Your task to perform on an android device: open app "Calculator" Image 0: 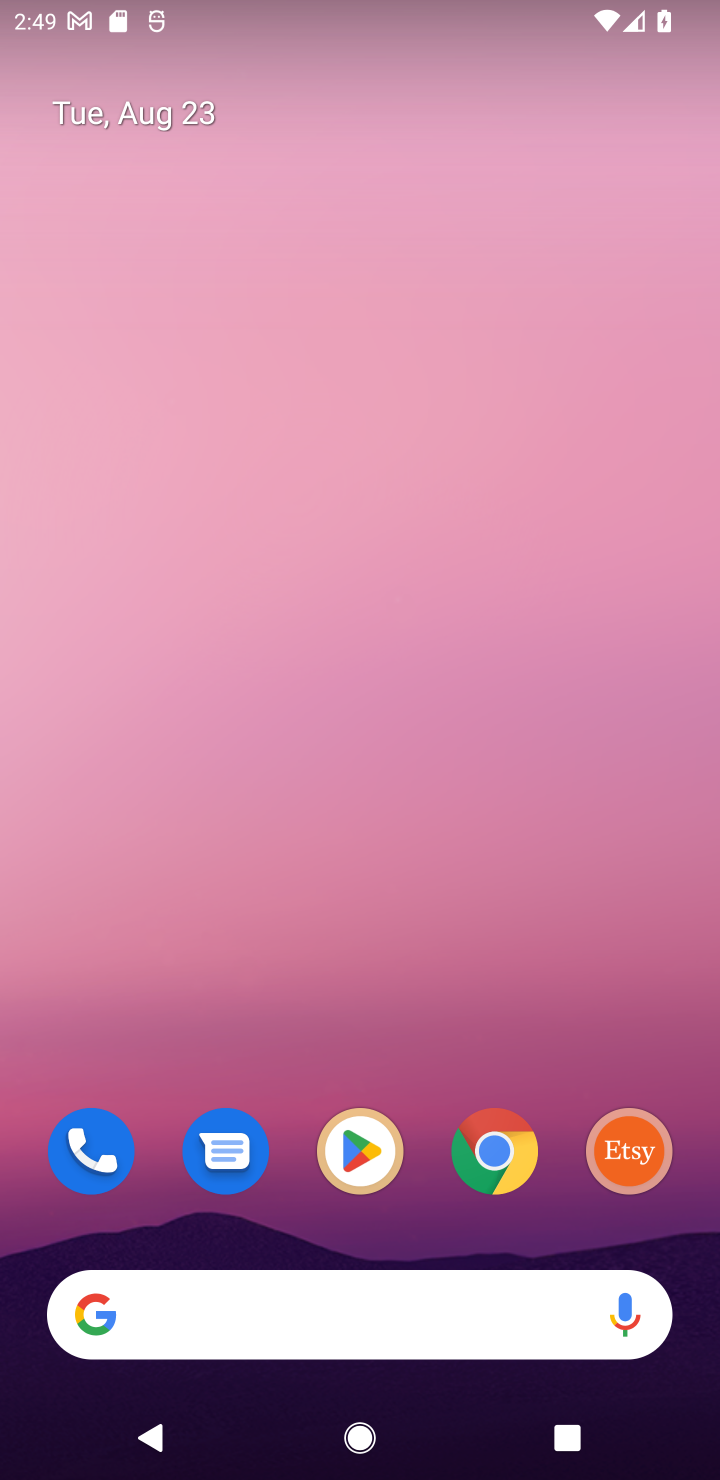
Step 0: click (354, 1154)
Your task to perform on an android device: open app "Calculator" Image 1: 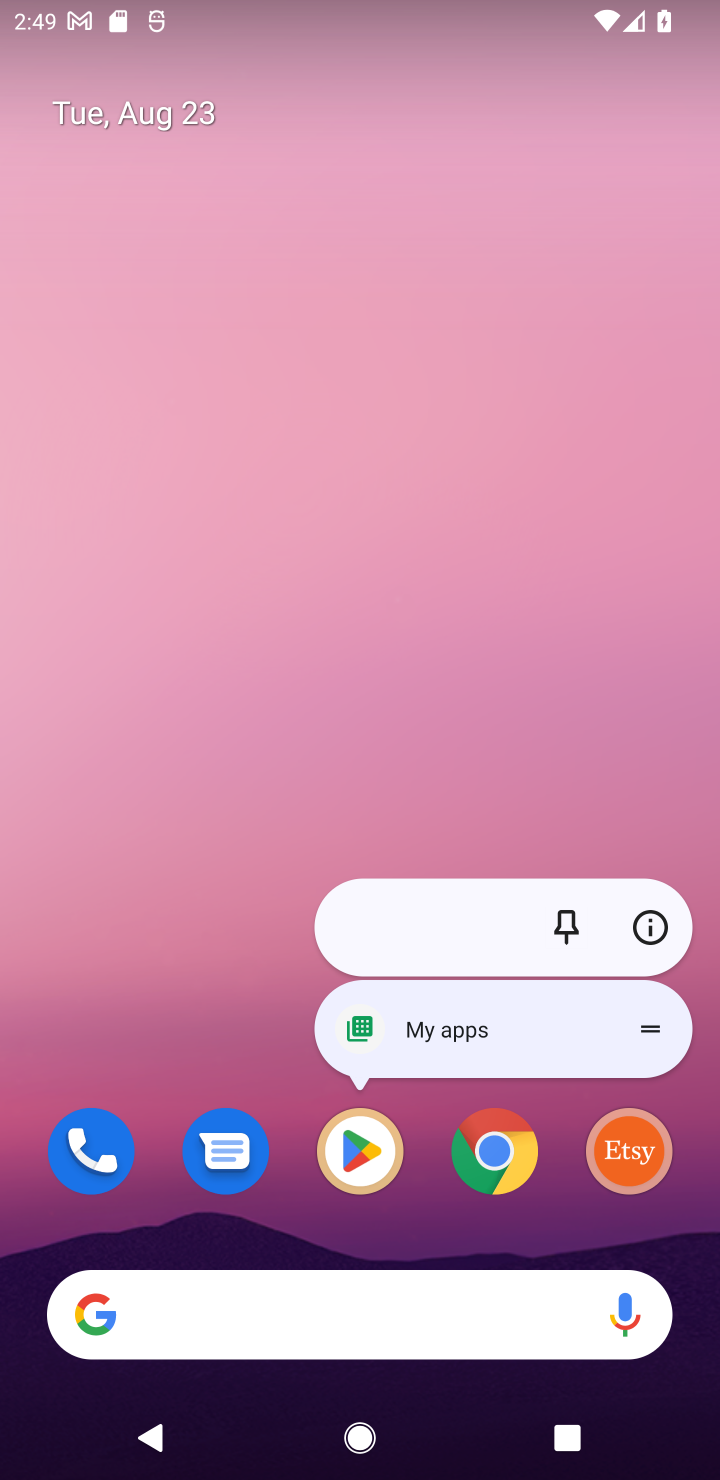
Step 1: click (354, 1163)
Your task to perform on an android device: open app "Calculator" Image 2: 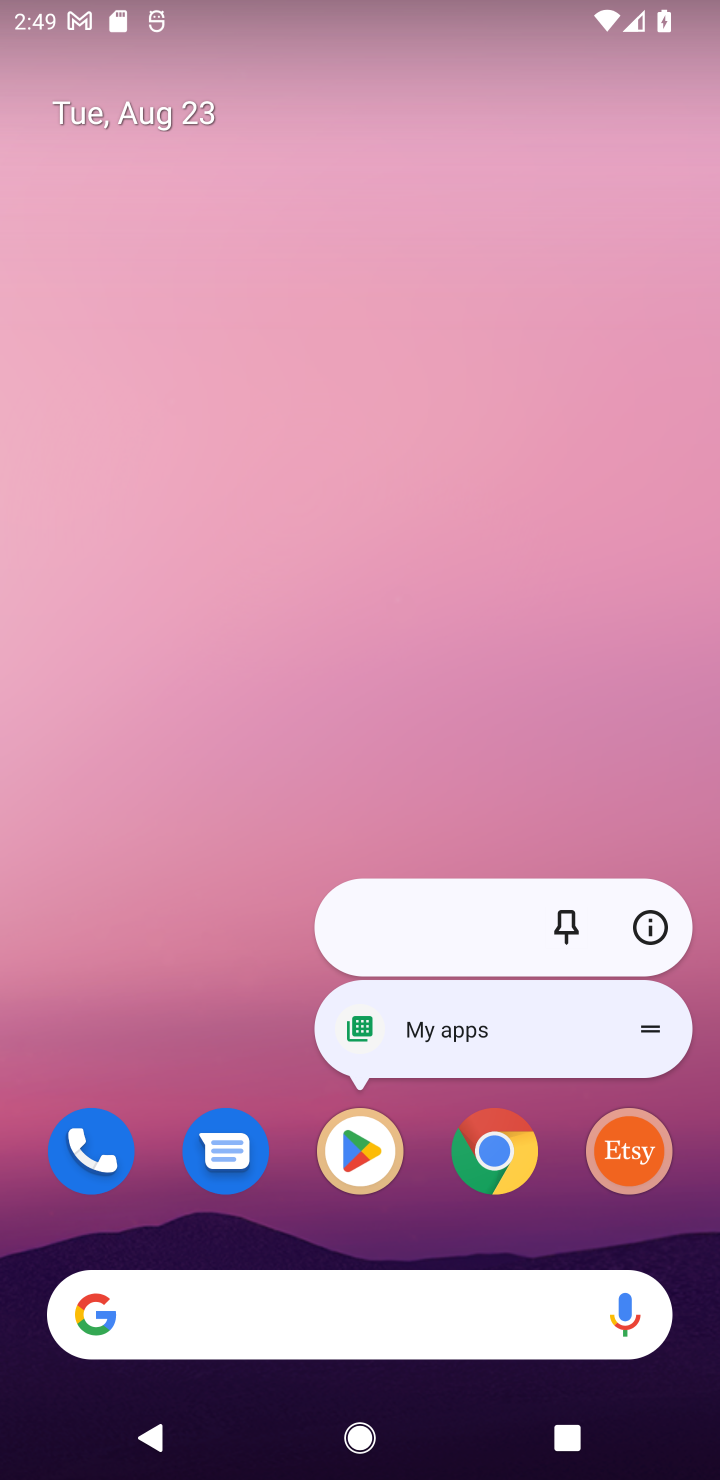
Step 2: click (354, 1163)
Your task to perform on an android device: open app "Calculator" Image 3: 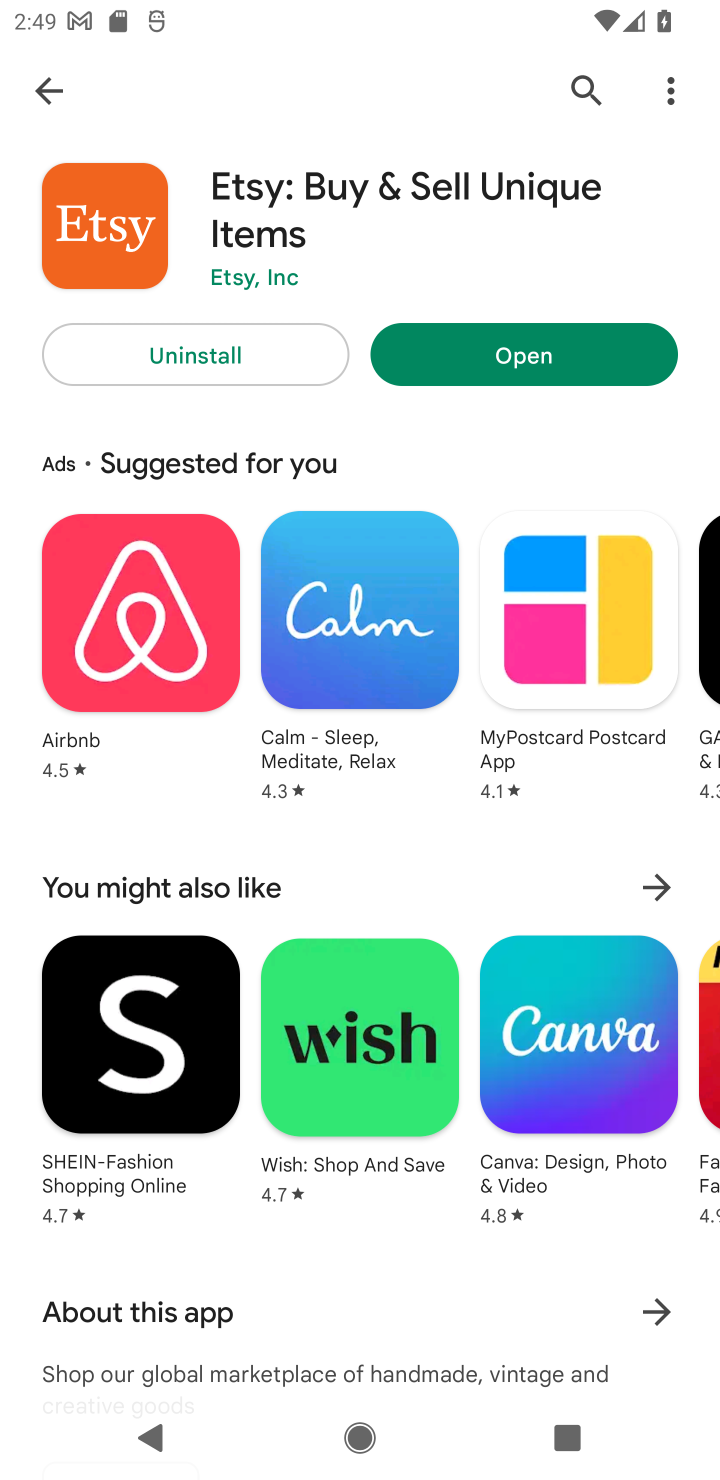
Step 3: click (583, 86)
Your task to perform on an android device: open app "Calculator" Image 4: 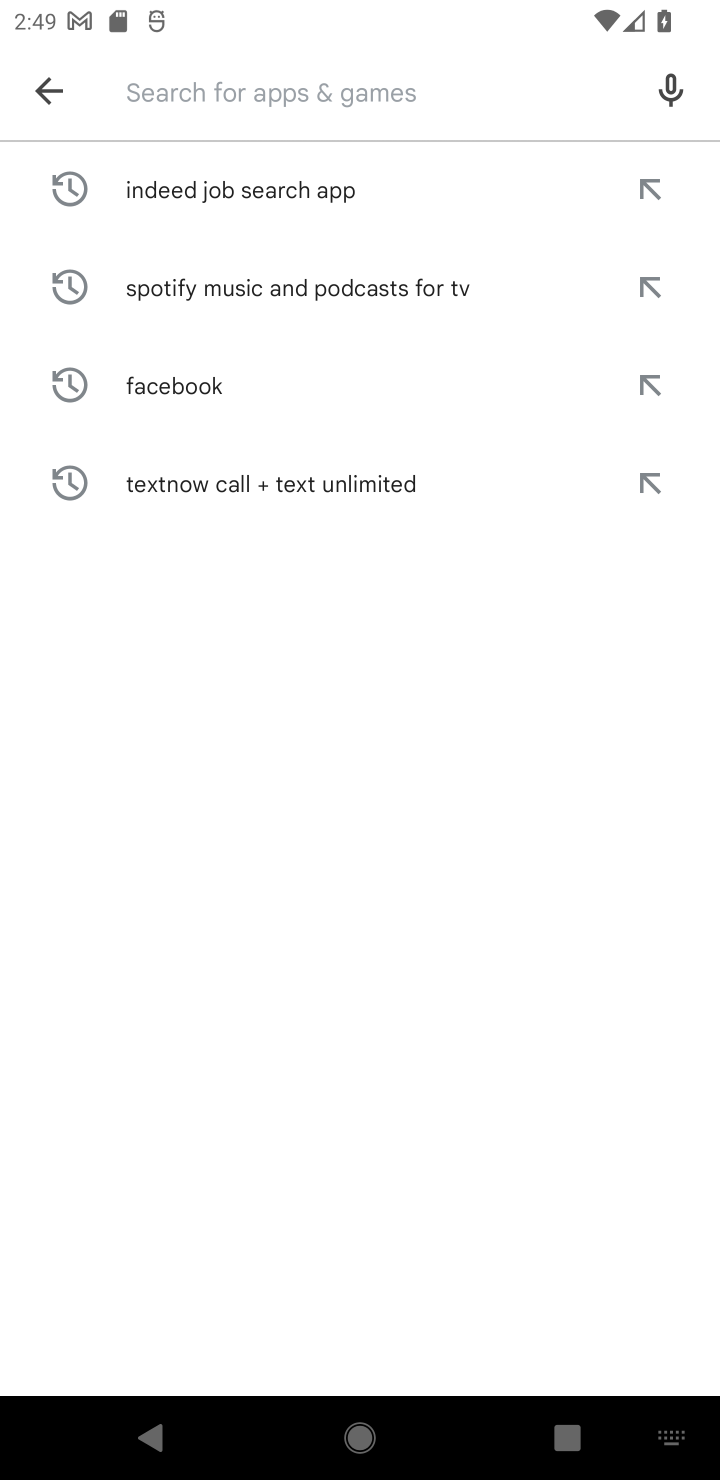
Step 4: type "Calculator"
Your task to perform on an android device: open app "Calculator" Image 5: 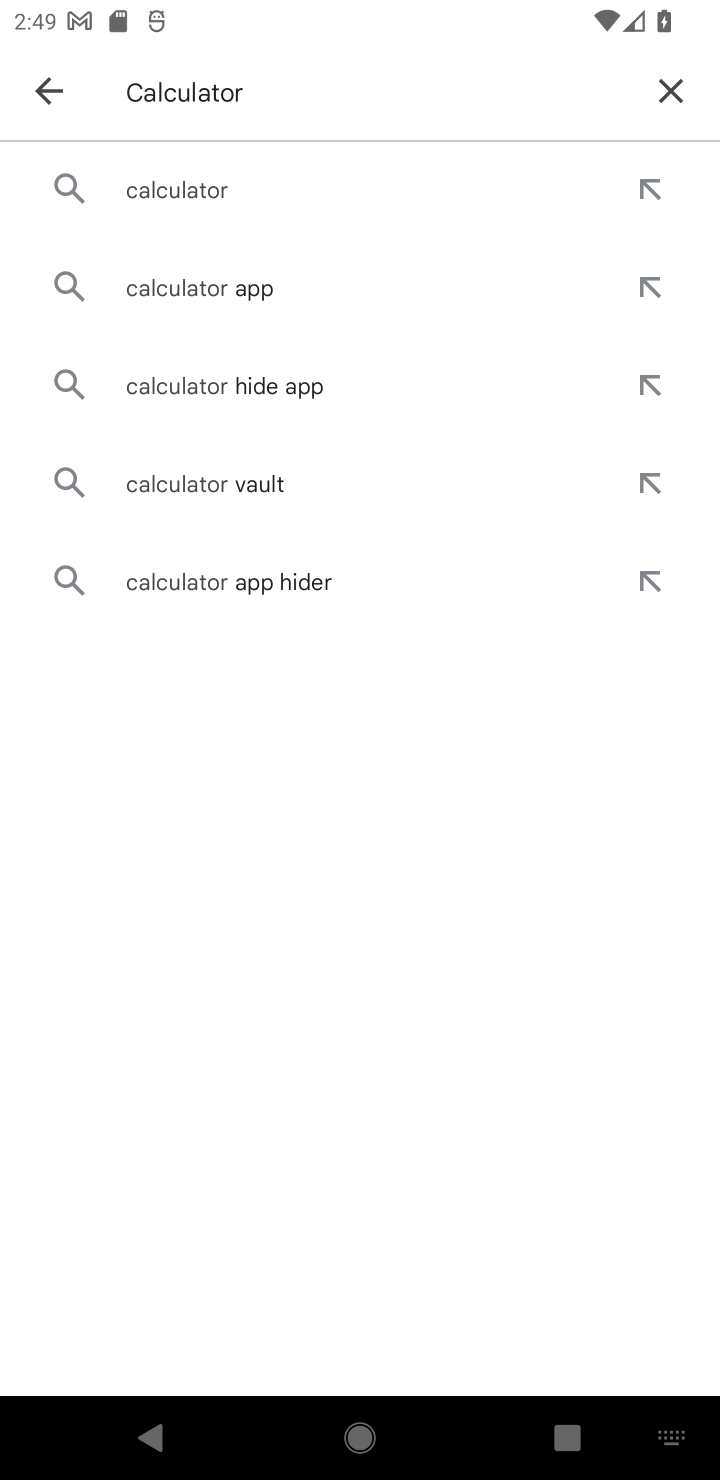
Step 5: click (196, 193)
Your task to perform on an android device: open app "Calculator" Image 6: 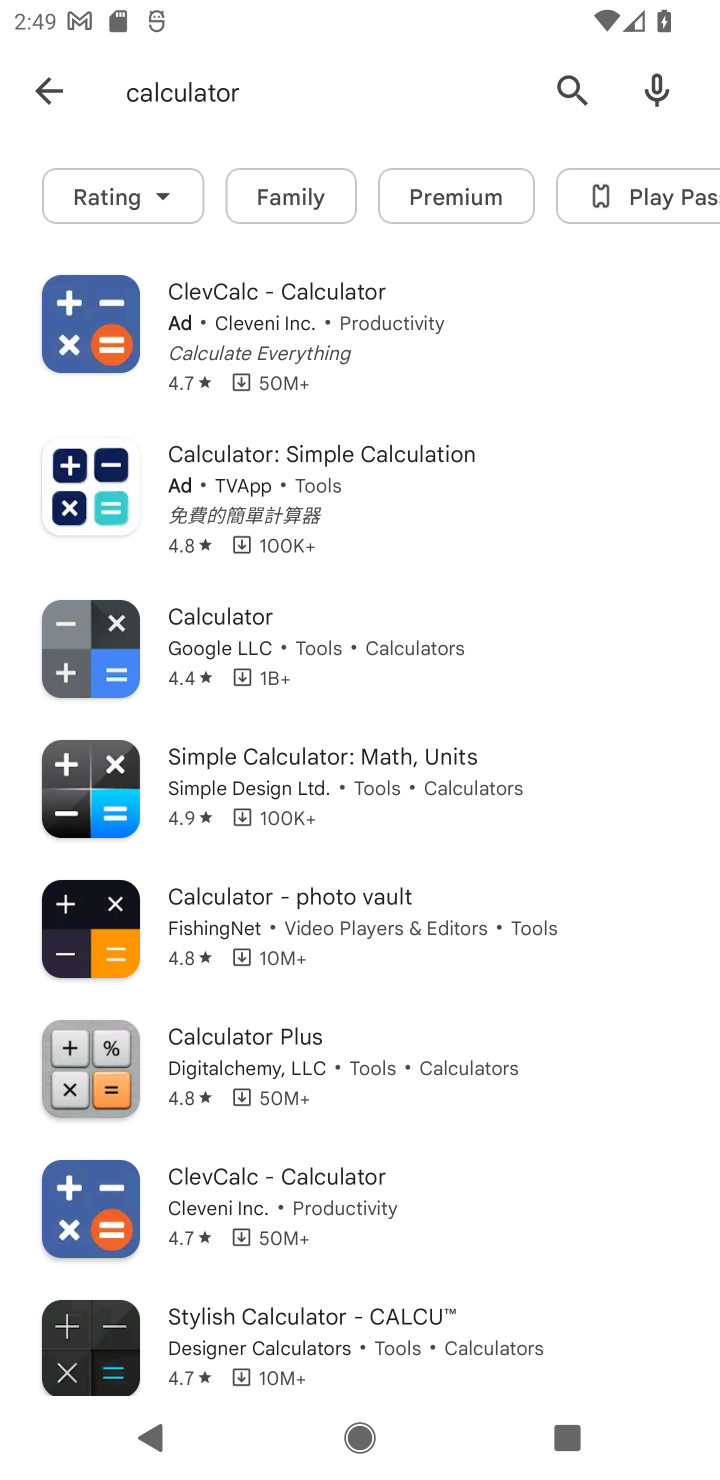
Step 6: click (282, 649)
Your task to perform on an android device: open app "Calculator" Image 7: 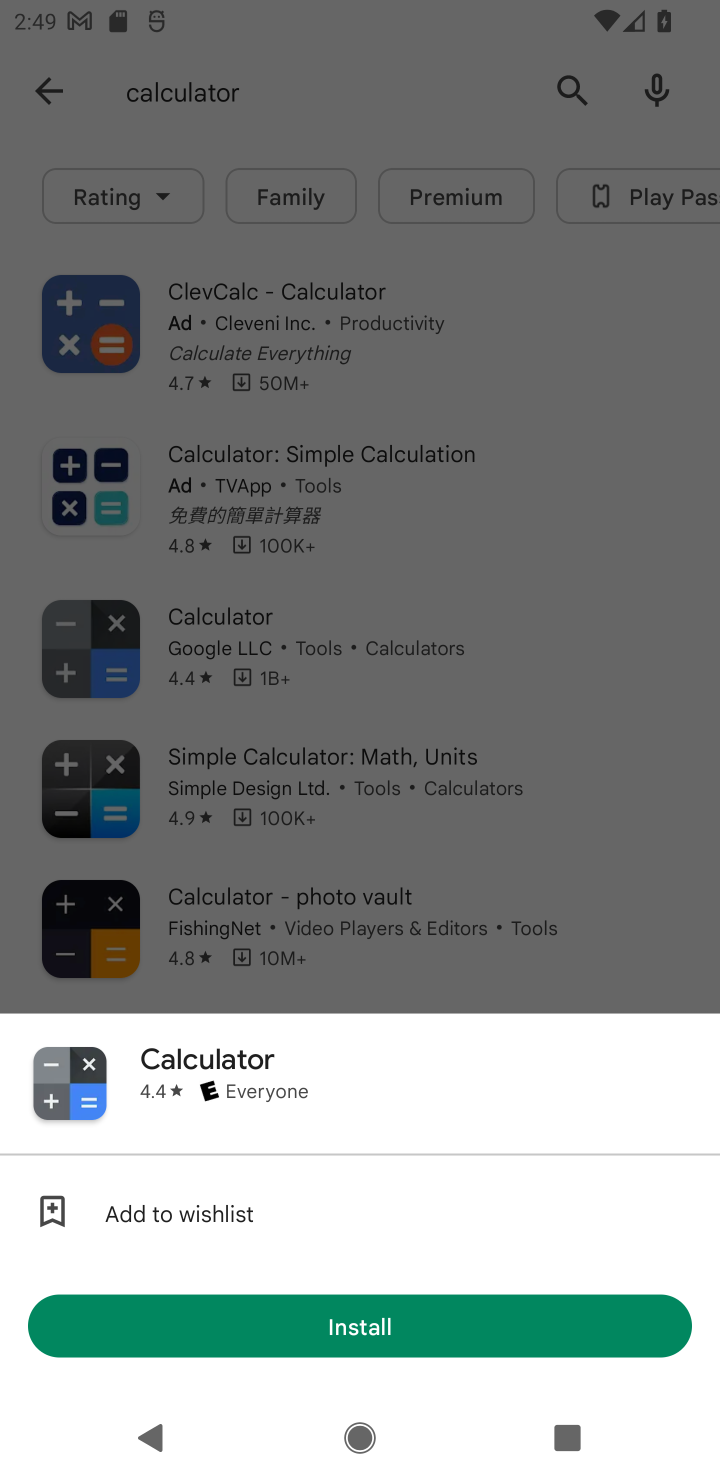
Step 7: task complete